Your task to perform on an android device: change text size in settings app Image 0: 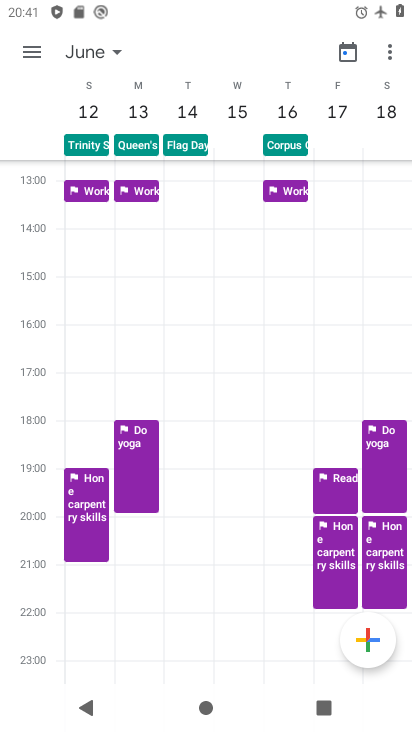
Step 0: press home button
Your task to perform on an android device: change text size in settings app Image 1: 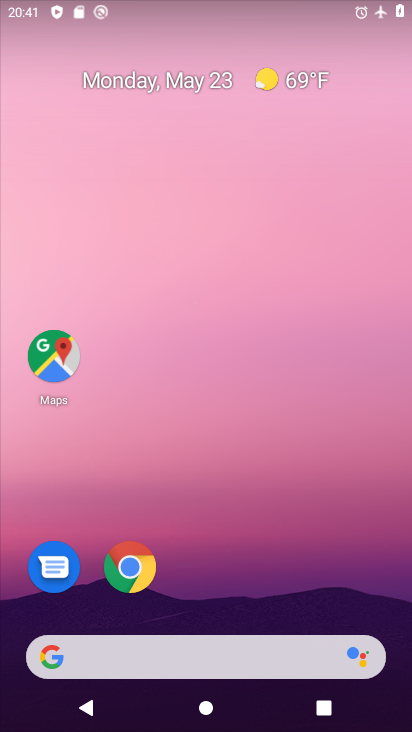
Step 1: drag from (208, 608) to (252, 115)
Your task to perform on an android device: change text size in settings app Image 2: 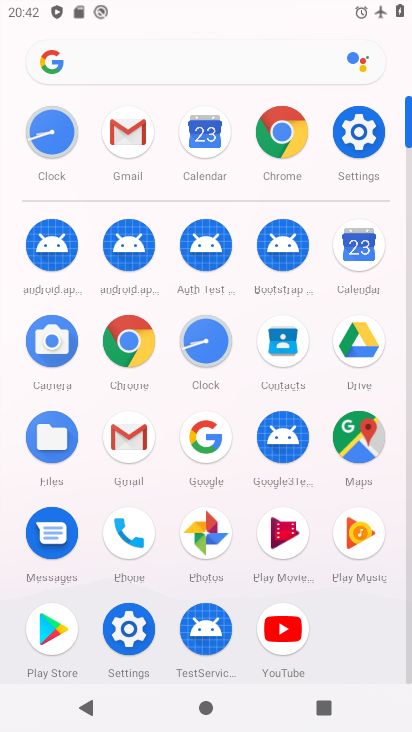
Step 2: click (368, 155)
Your task to perform on an android device: change text size in settings app Image 3: 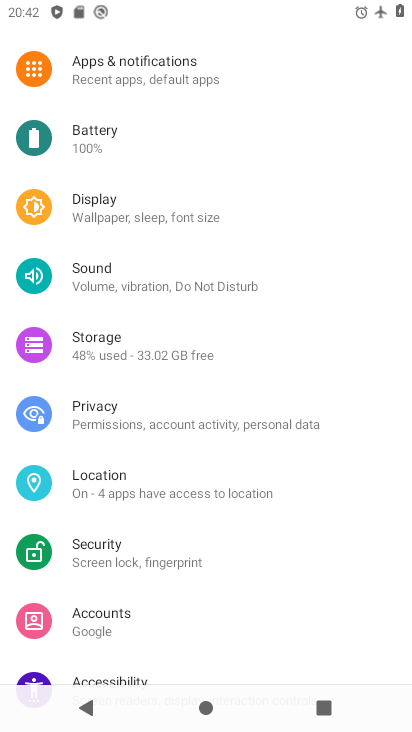
Step 3: click (148, 227)
Your task to perform on an android device: change text size in settings app Image 4: 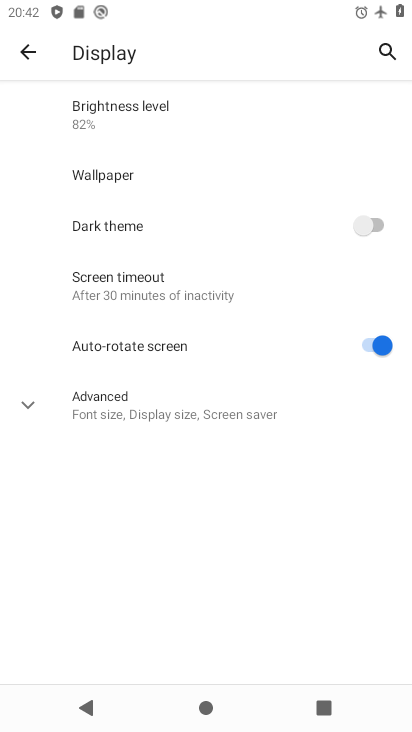
Step 4: click (133, 412)
Your task to perform on an android device: change text size in settings app Image 5: 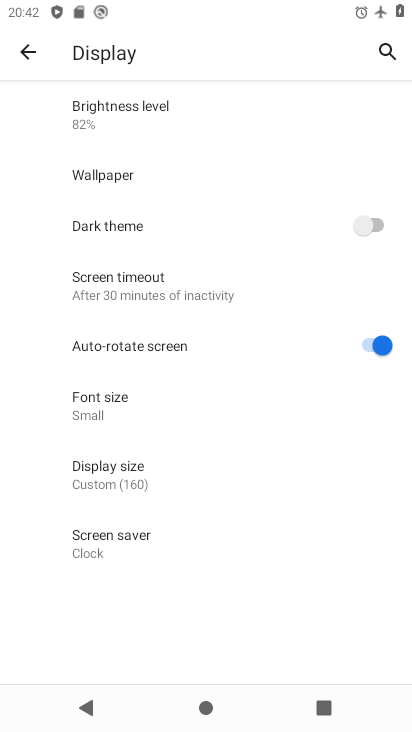
Step 5: click (123, 412)
Your task to perform on an android device: change text size in settings app Image 6: 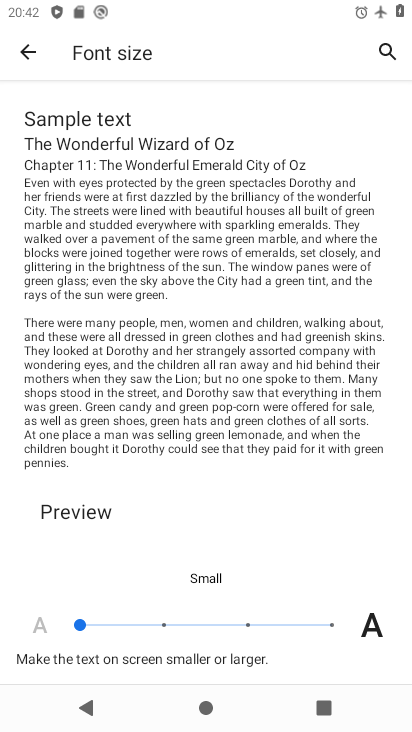
Step 6: click (157, 624)
Your task to perform on an android device: change text size in settings app Image 7: 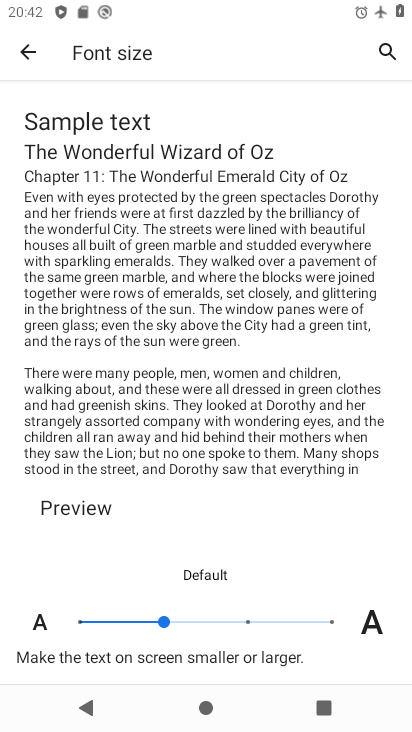
Step 7: task complete